Your task to perform on an android device: Search for bose quietcomfort 35 on amazon.com, select the first entry, add it to the cart, then select checkout. Image 0: 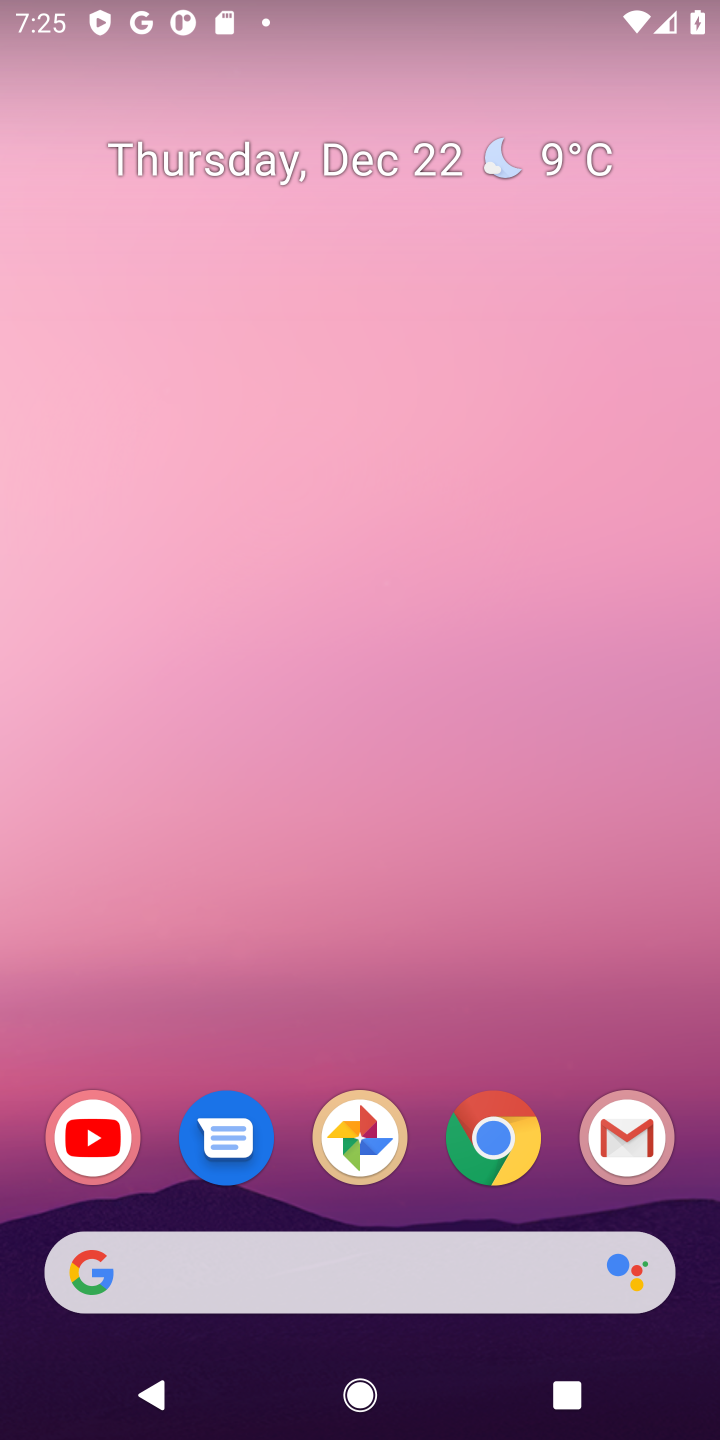
Step 0: click (485, 1145)
Your task to perform on an android device: Search for bose quietcomfort 35 on amazon.com, select the first entry, add it to the cart, then select checkout. Image 1: 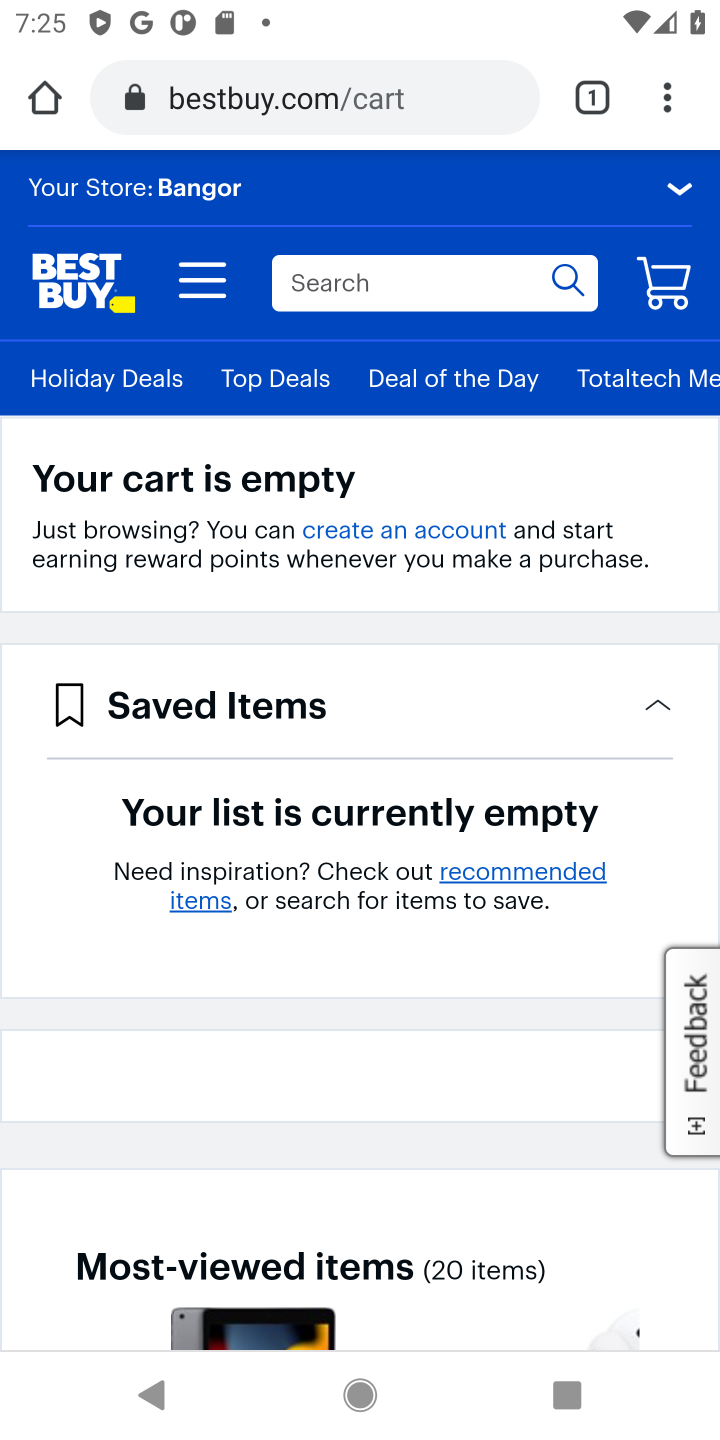
Step 1: click (484, 90)
Your task to perform on an android device: Search for bose quietcomfort 35 on amazon.com, select the first entry, add it to the cart, then select checkout. Image 2: 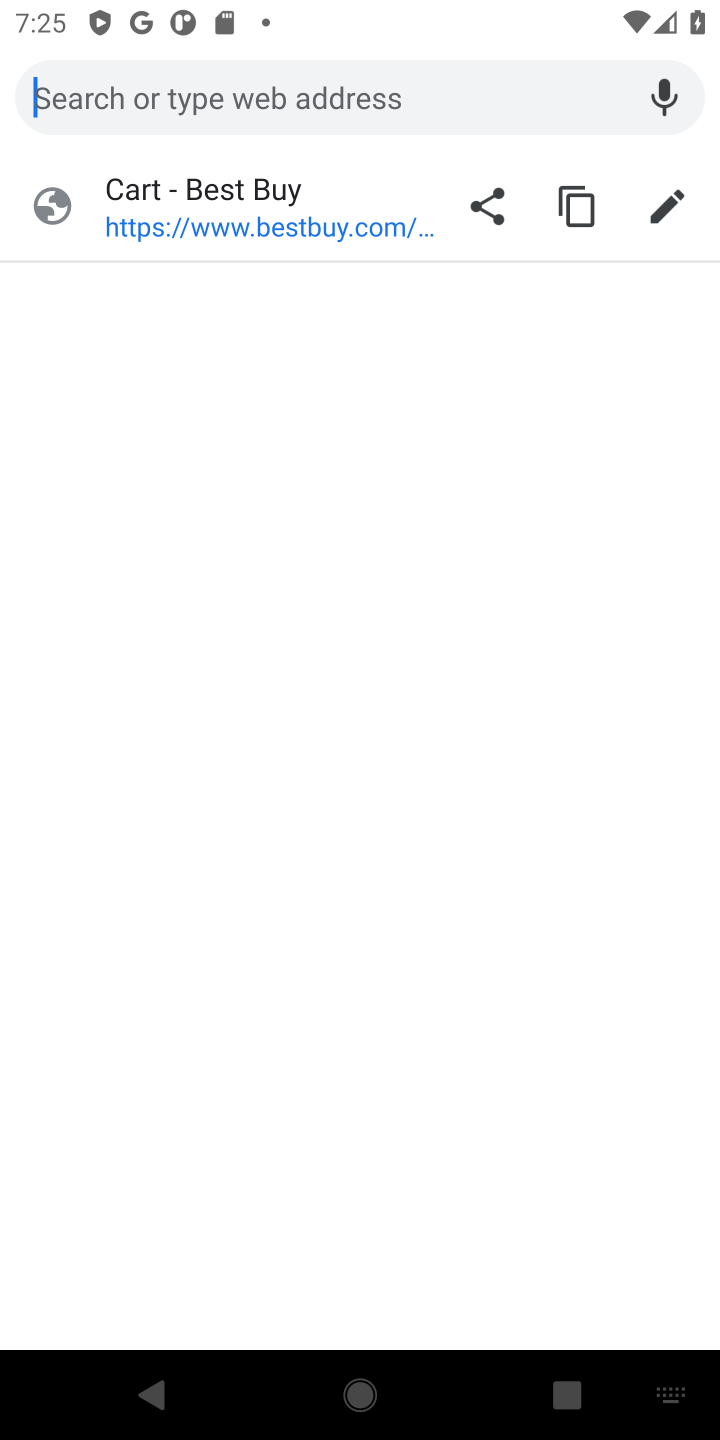
Step 2: type "amazon.com"
Your task to perform on an android device: Search for bose quietcomfort 35 on amazon.com, select the first entry, add it to the cart, then select checkout. Image 3: 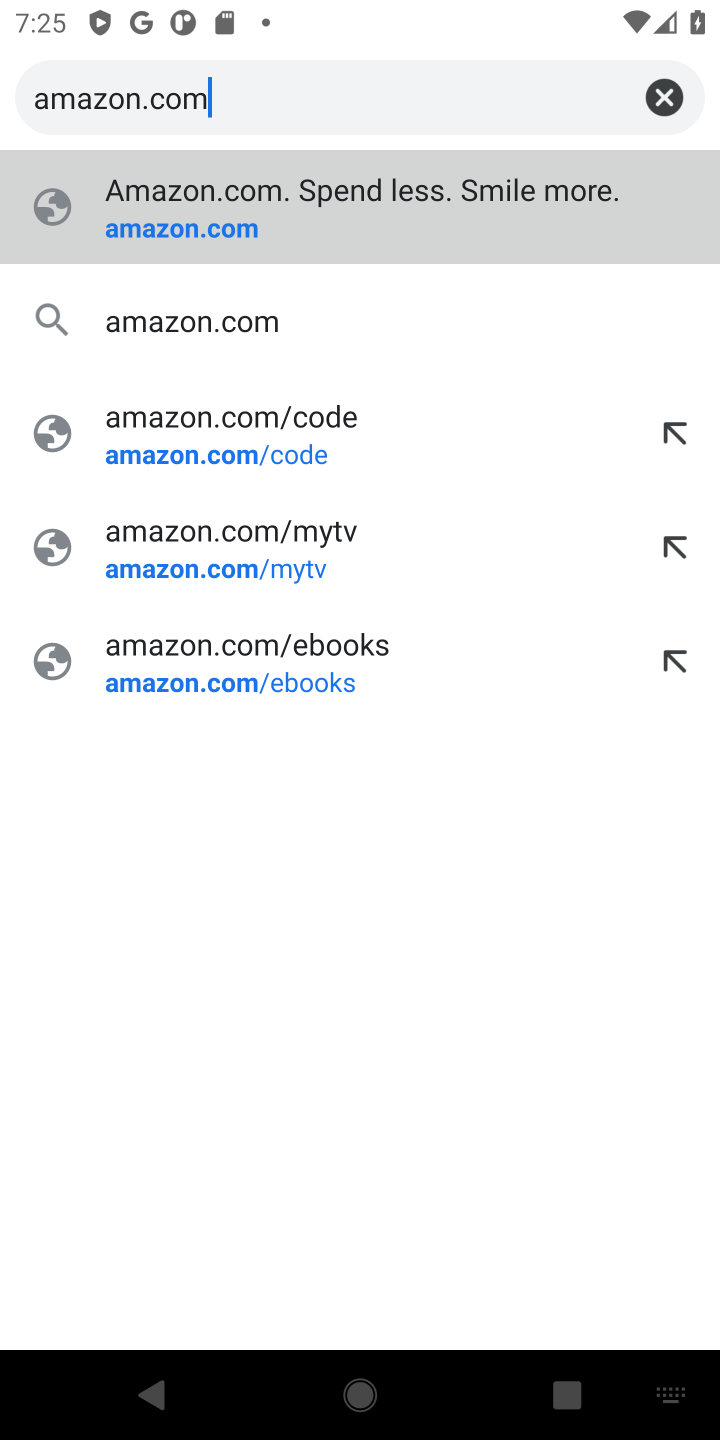
Step 3: click (193, 311)
Your task to perform on an android device: Search for bose quietcomfort 35 on amazon.com, select the first entry, add it to the cart, then select checkout. Image 4: 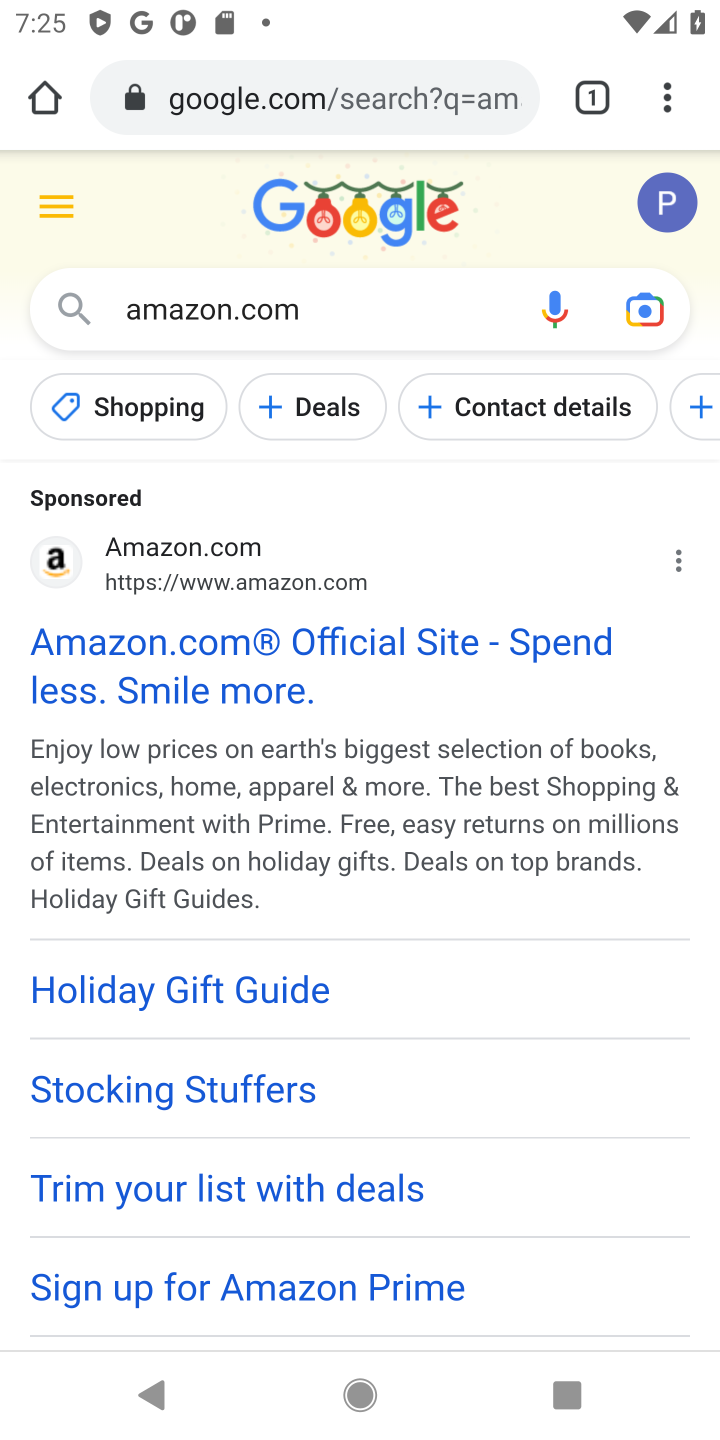
Step 4: click (207, 547)
Your task to perform on an android device: Search for bose quietcomfort 35 on amazon.com, select the first entry, add it to the cart, then select checkout. Image 5: 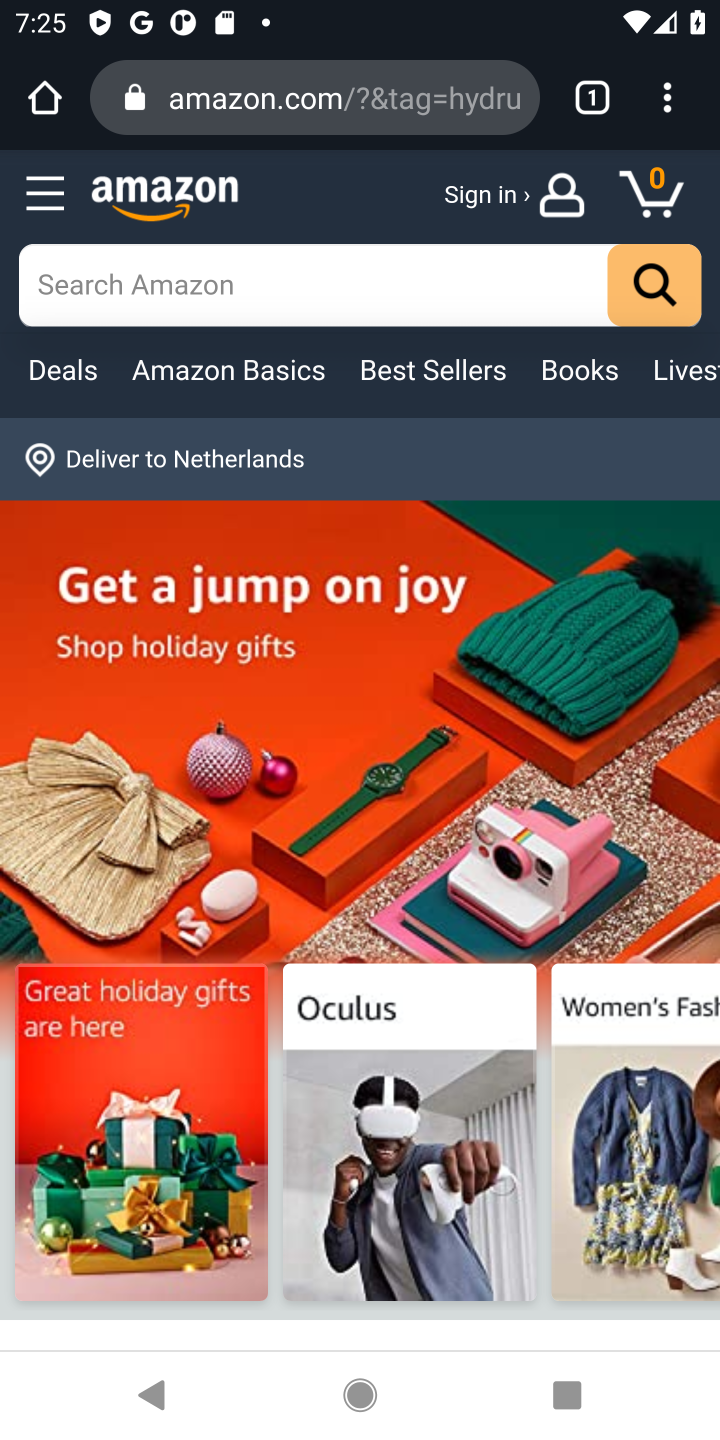
Step 5: click (285, 1411)
Your task to perform on an android device: Search for bose quietcomfort 35 on amazon.com, select the first entry, add it to the cart, then select checkout. Image 6: 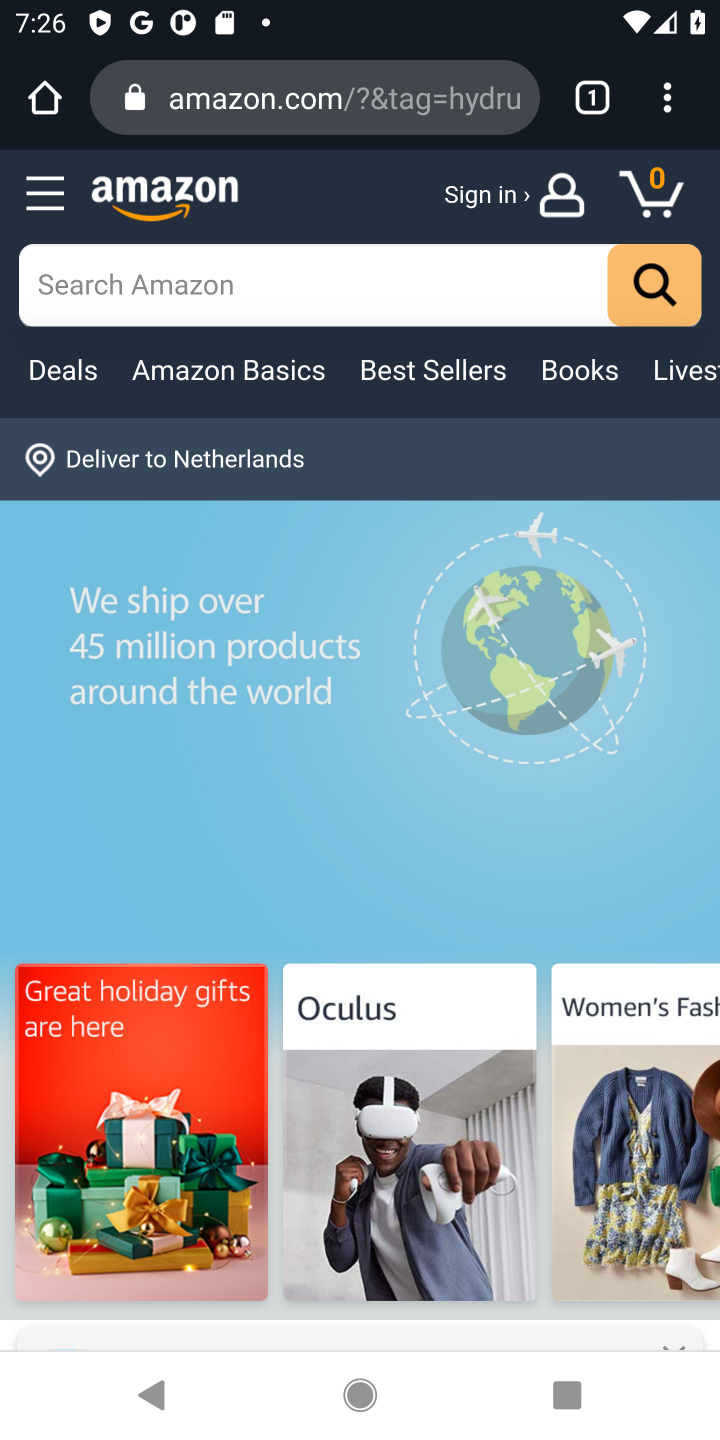
Step 6: click (411, 298)
Your task to perform on an android device: Search for bose quietcomfort 35 on amazon.com, select the first entry, add it to the cart, then select checkout. Image 7: 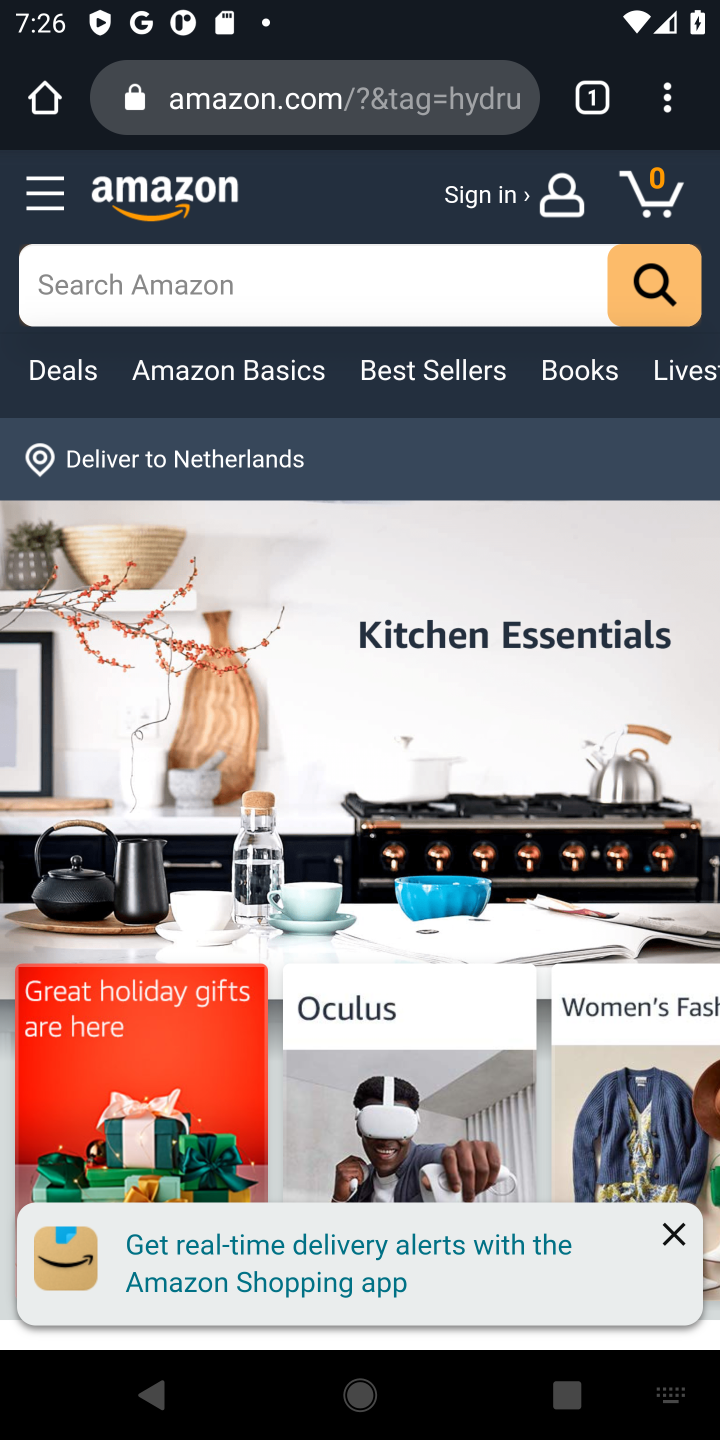
Step 7: type "bose quietcomfort 35"
Your task to perform on an android device: Search for bose quietcomfort 35 on amazon.com, select the first entry, add it to the cart, then select checkout. Image 8: 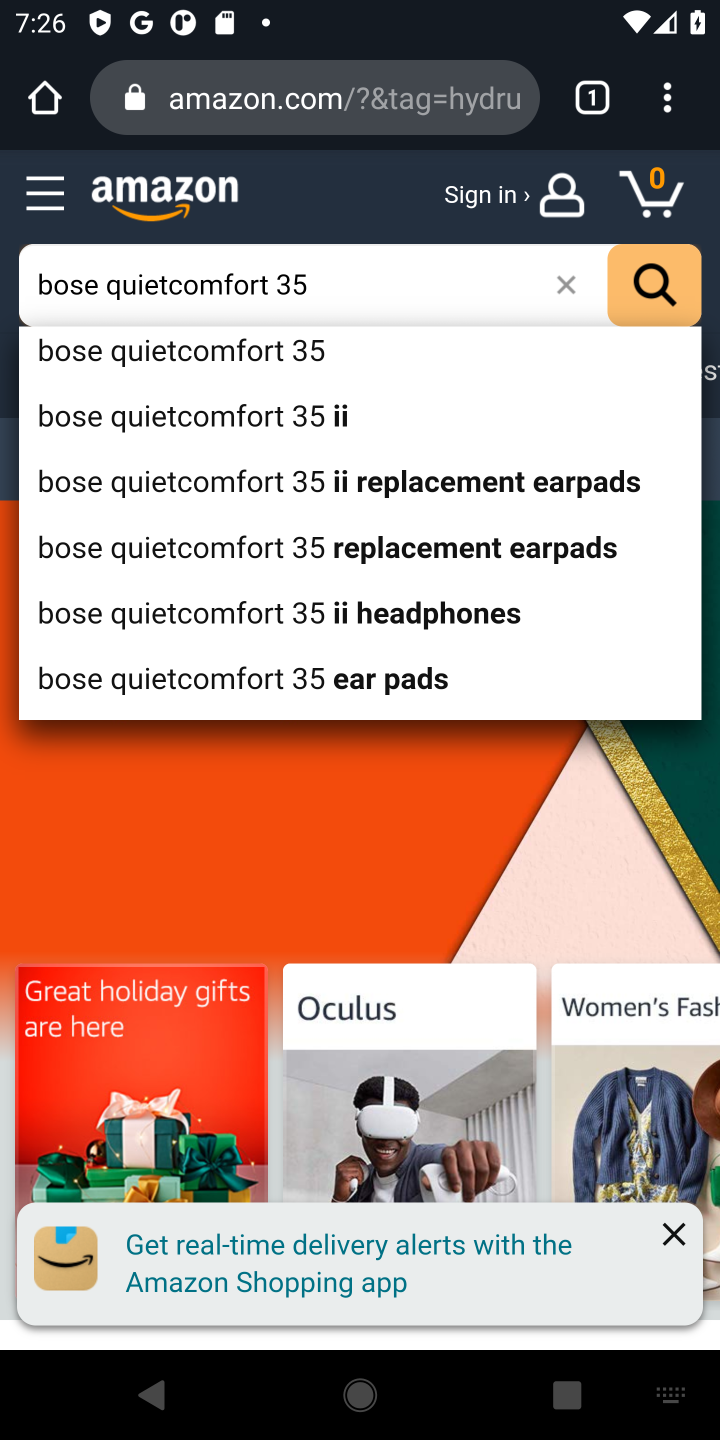
Step 8: click (171, 351)
Your task to perform on an android device: Search for bose quietcomfort 35 on amazon.com, select the first entry, add it to the cart, then select checkout. Image 9: 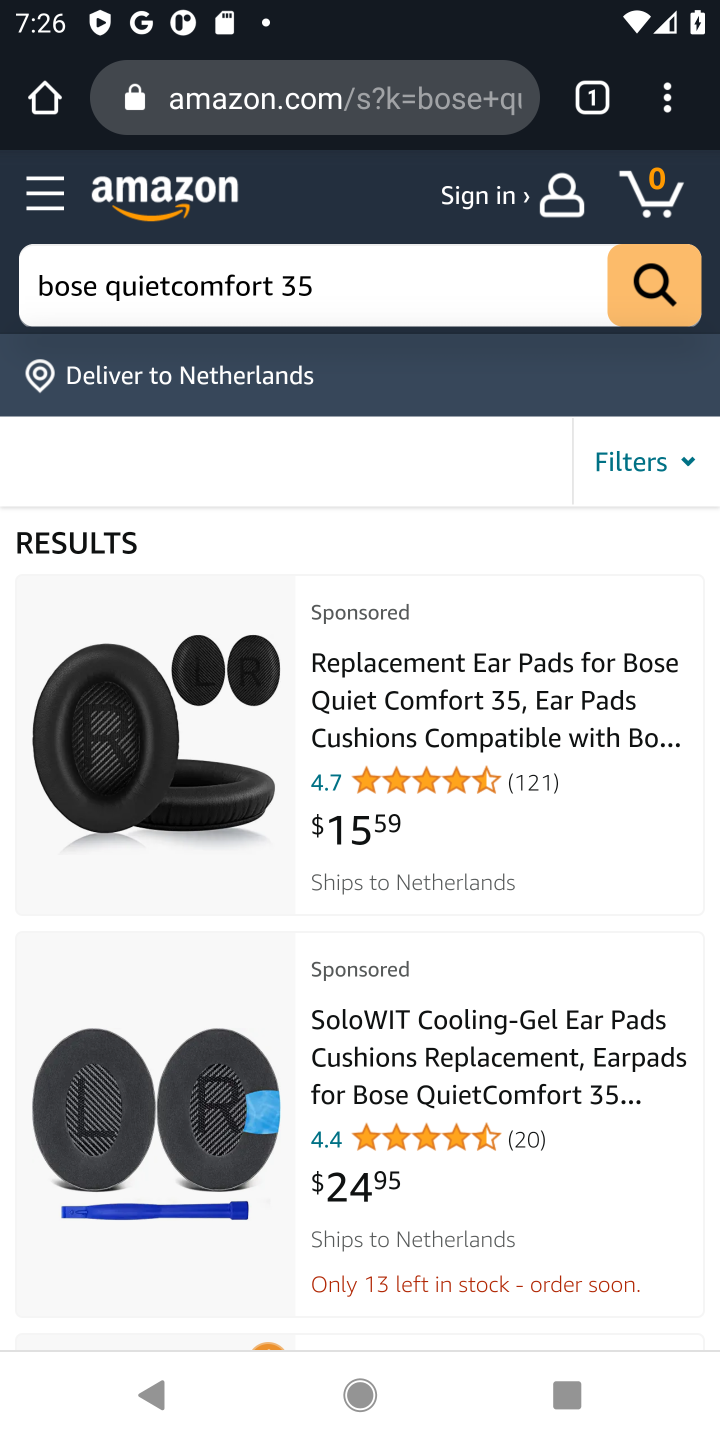
Step 9: click (105, 740)
Your task to perform on an android device: Search for bose quietcomfort 35 on amazon.com, select the first entry, add it to the cart, then select checkout. Image 10: 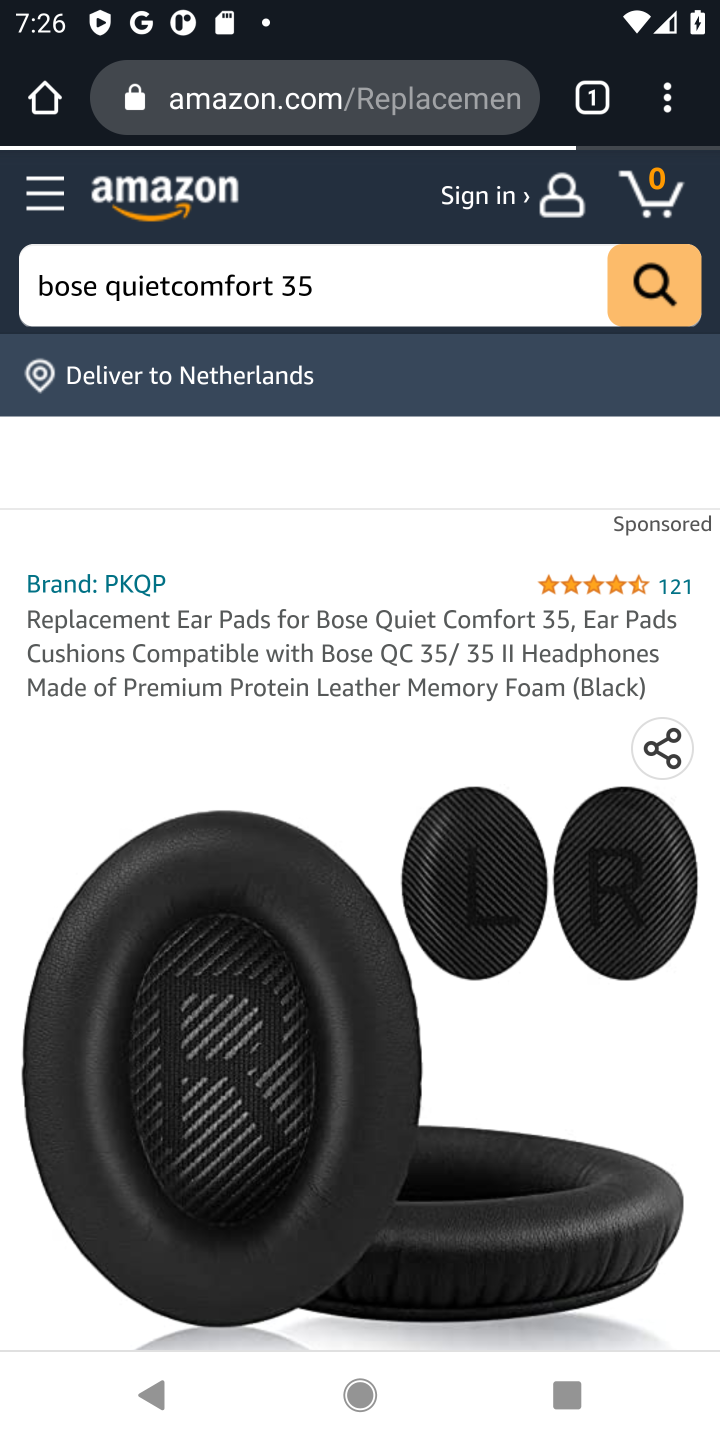
Step 10: drag from (281, 1041) to (380, 334)
Your task to perform on an android device: Search for bose quietcomfort 35 on amazon.com, select the first entry, add it to the cart, then select checkout. Image 11: 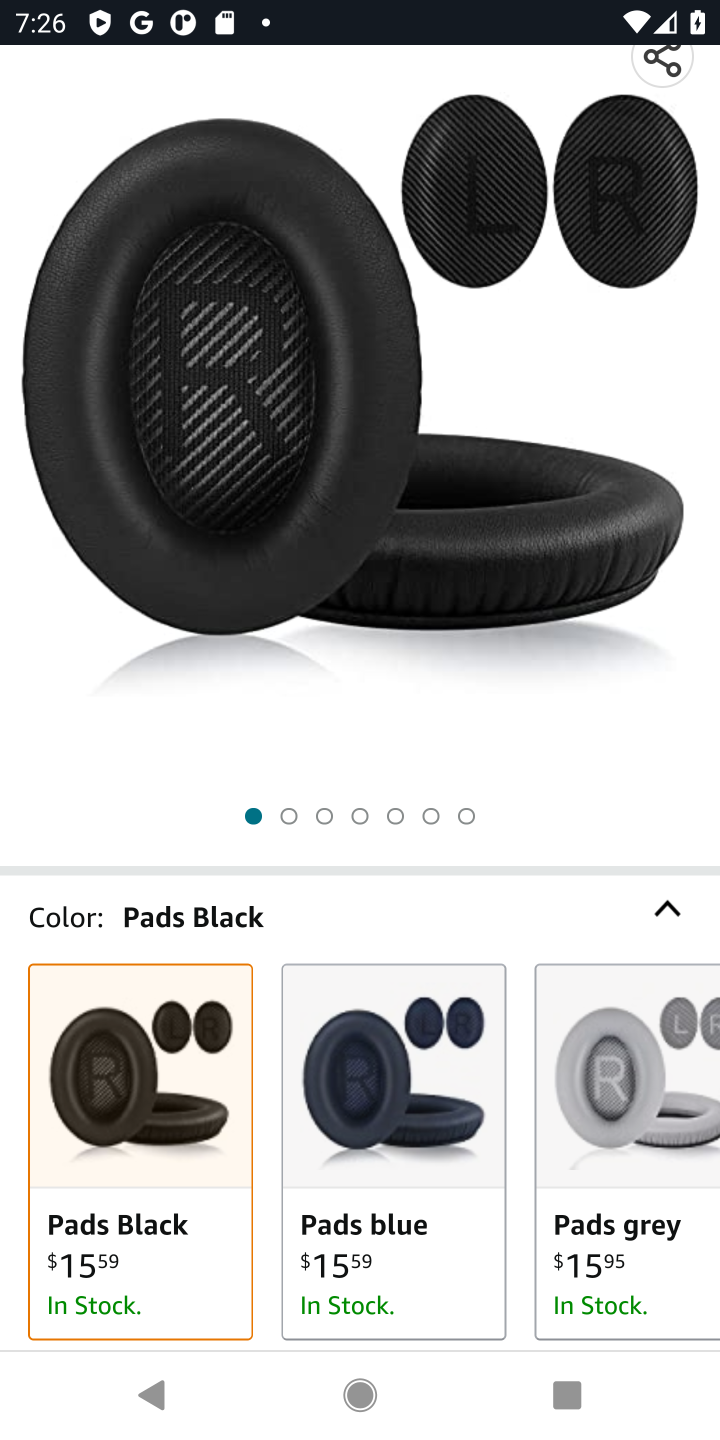
Step 11: drag from (352, 674) to (423, 189)
Your task to perform on an android device: Search for bose quietcomfort 35 on amazon.com, select the first entry, add it to the cart, then select checkout. Image 12: 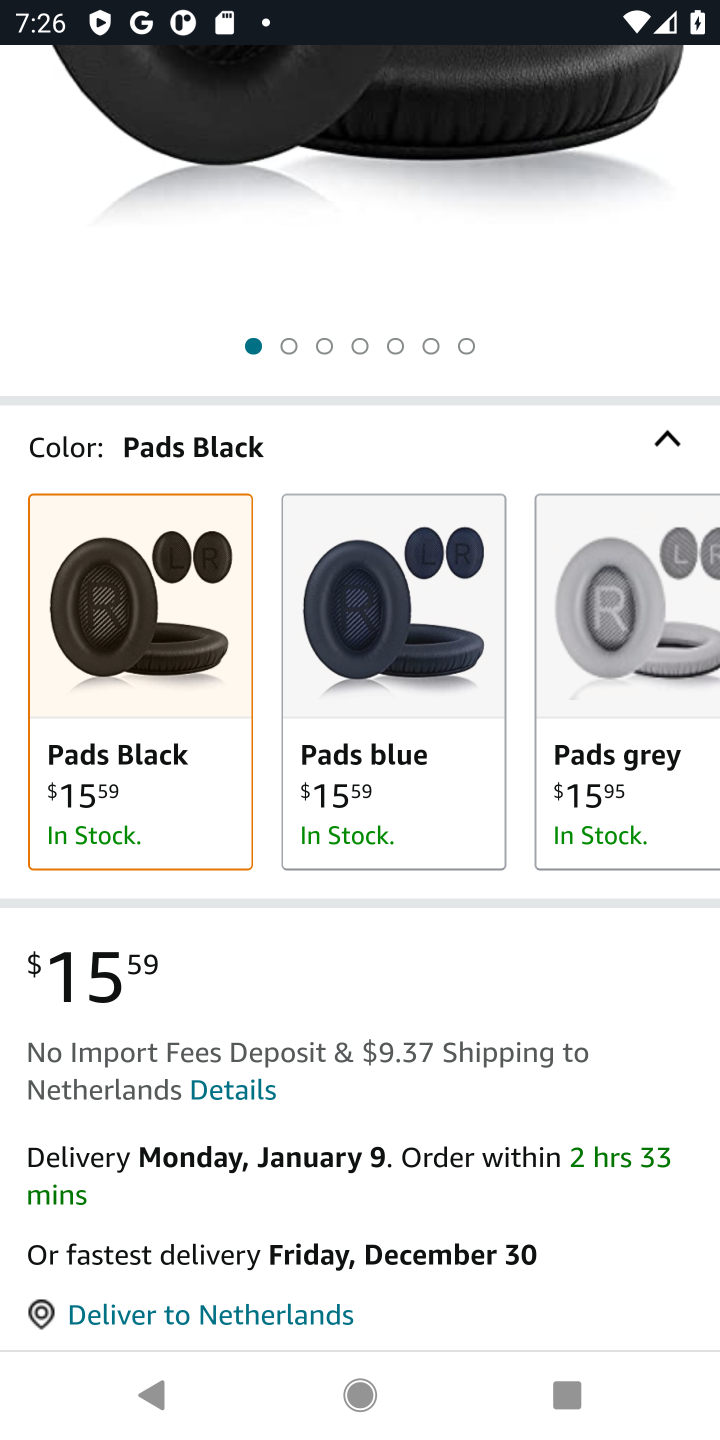
Step 12: drag from (389, 1027) to (434, 528)
Your task to perform on an android device: Search for bose quietcomfort 35 on amazon.com, select the first entry, add it to the cart, then select checkout. Image 13: 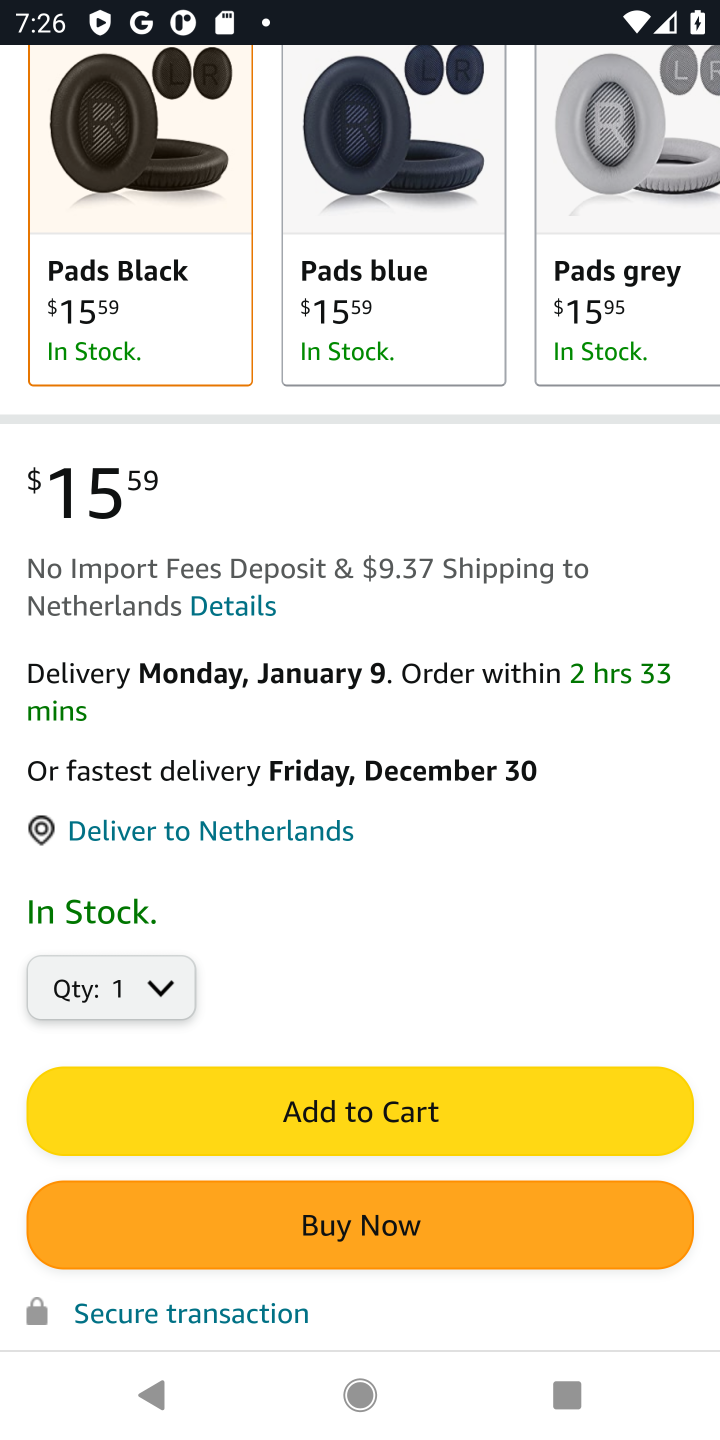
Step 13: click (374, 1095)
Your task to perform on an android device: Search for bose quietcomfort 35 on amazon.com, select the first entry, add it to the cart, then select checkout. Image 14: 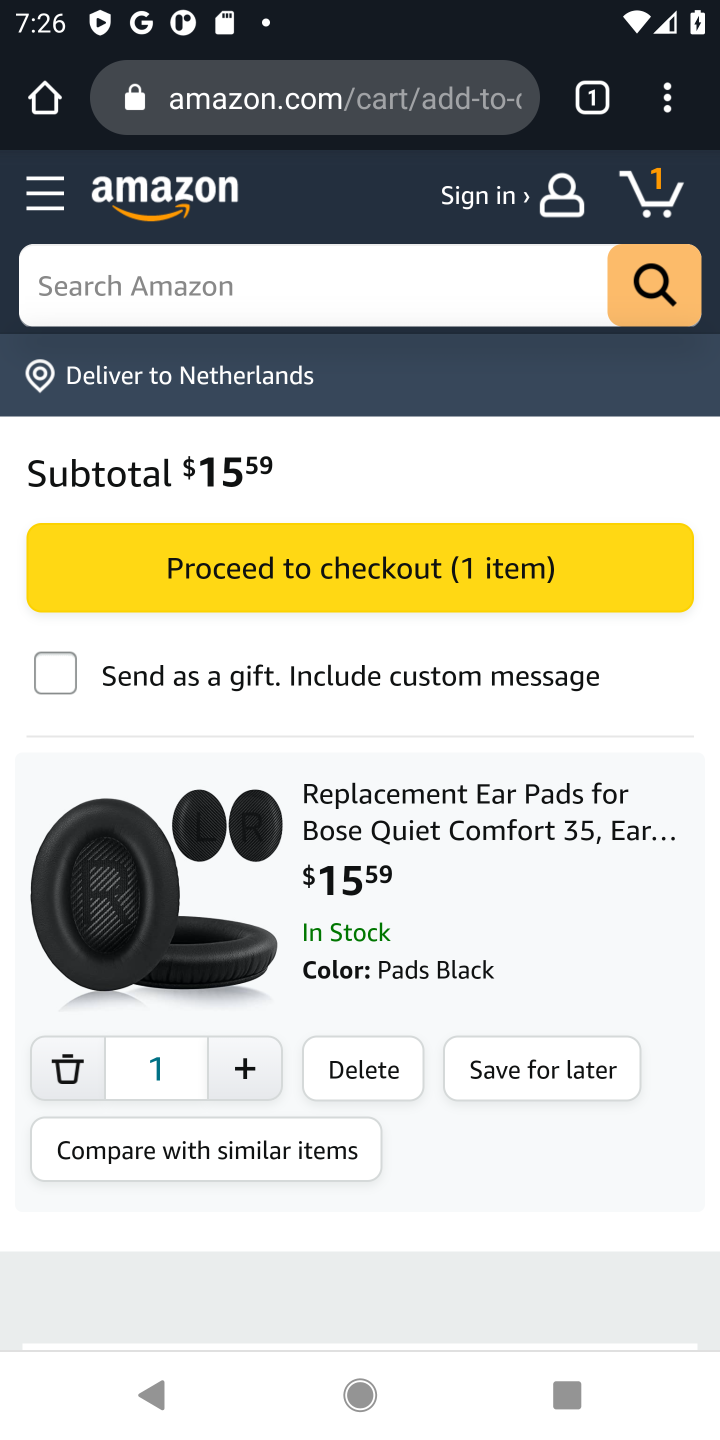
Step 14: click (465, 556)
Your task to perform on an android device: Search for bose quietcomfort 35 on amazon.com, select the first entry, add it to the cart, then select checkout. Image 15: 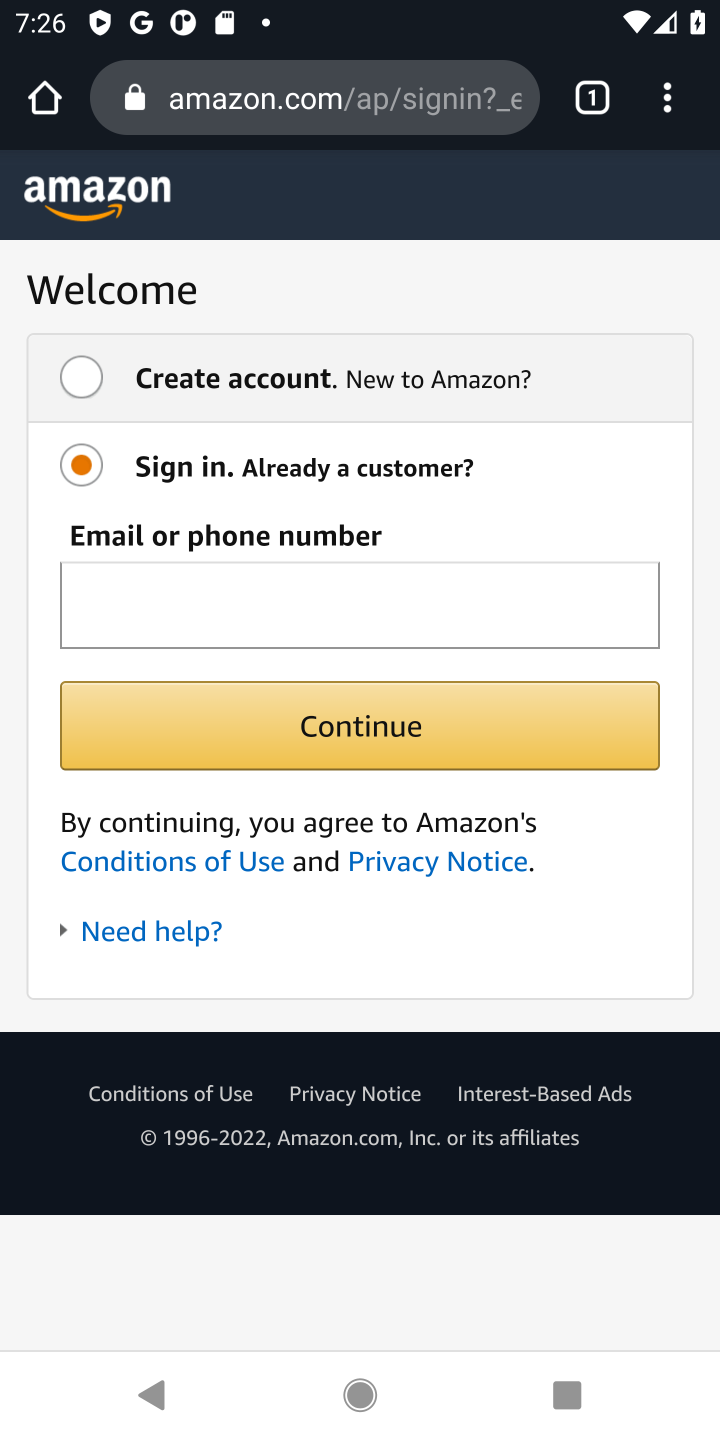
Step 15: task complete